Your task to perform on an android device: change notifications settings Image 0: 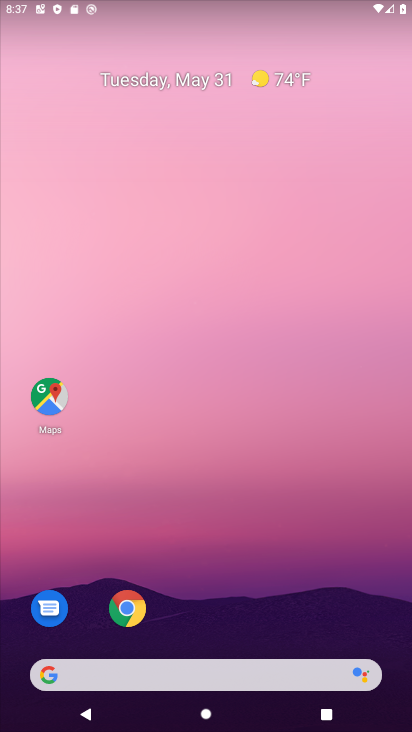
Step 0: drag from (219, 645) to (145, 101)
Your task to perform on an android device: change notifications settings Image 1: 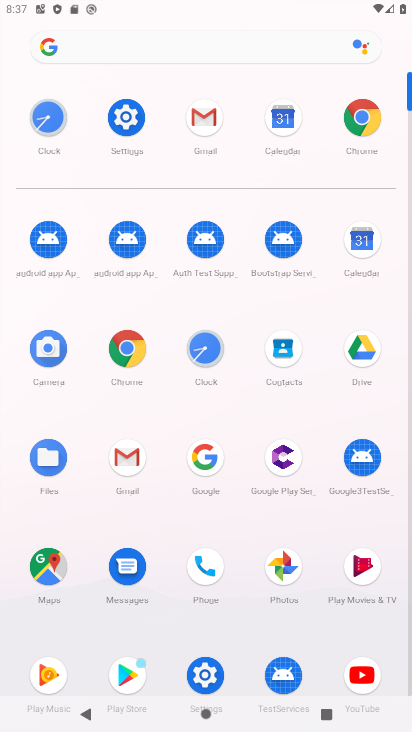
Step 1: click (137, 118)
Your task to perform on an android device: change notifications settings Image 2: 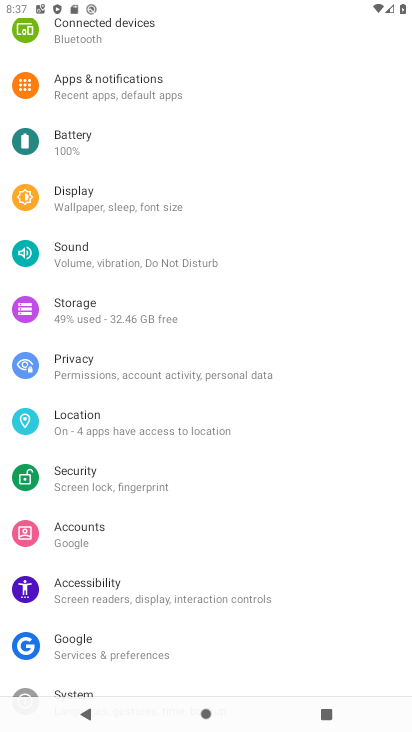
Step 2: click (121, 90)
Your task to perform on an android device: change notifications settings Image 3: 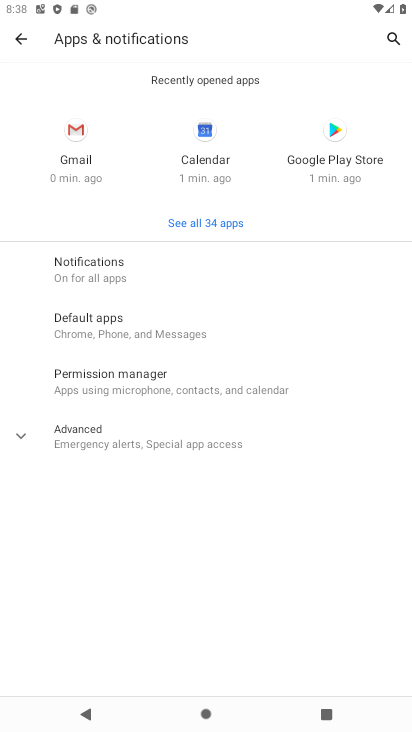
Step 3: click (78, 273)
Your task to perform on an android device: change notifications settings Image 4: 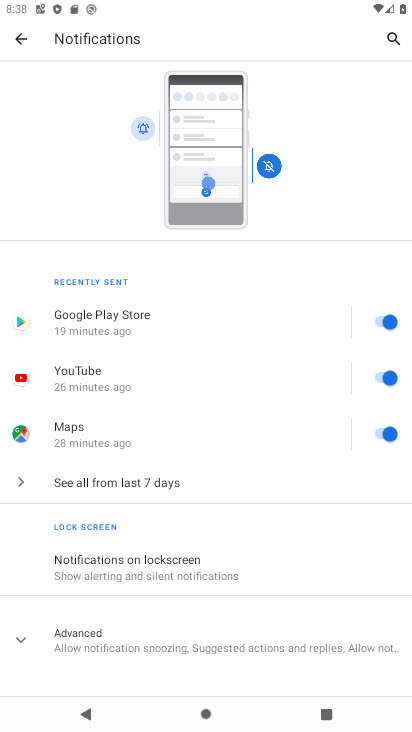
Step 4: task complete